Your task to perform on an android device: star an email in the gmail app Image 0: 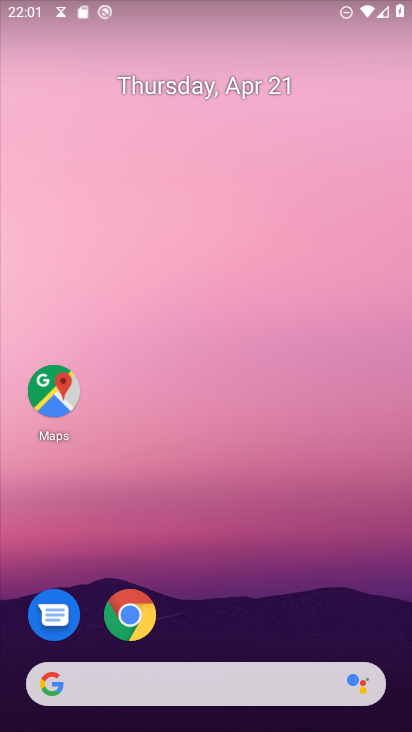
Step 0: drag from (213, 648) to (225, 285)
Your task to perform on an android device: star an email in the gmail app Image 1: 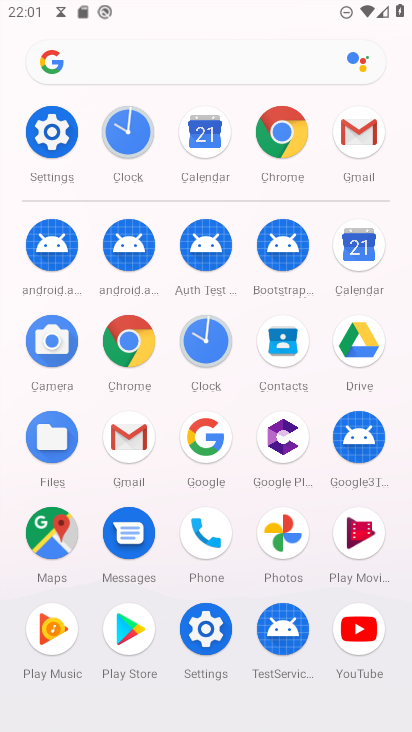
Step 1: click (126, 434)
Your task to perform on an android device: star an email in the gmail app Image 2: 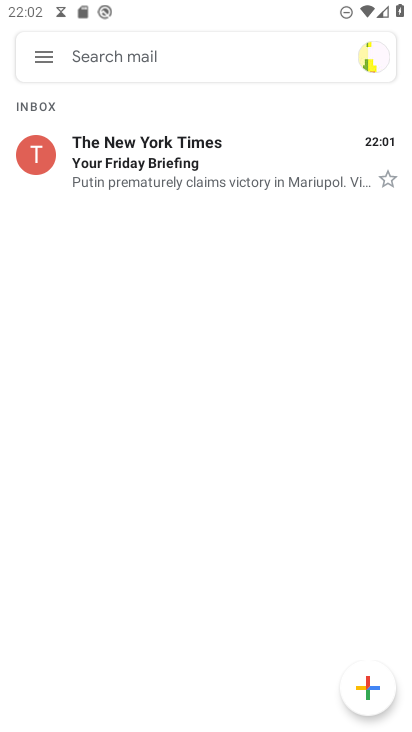
Step 2: task complete